Your task to perform on an android device: Open Chrome and go to the settings page Image 0: 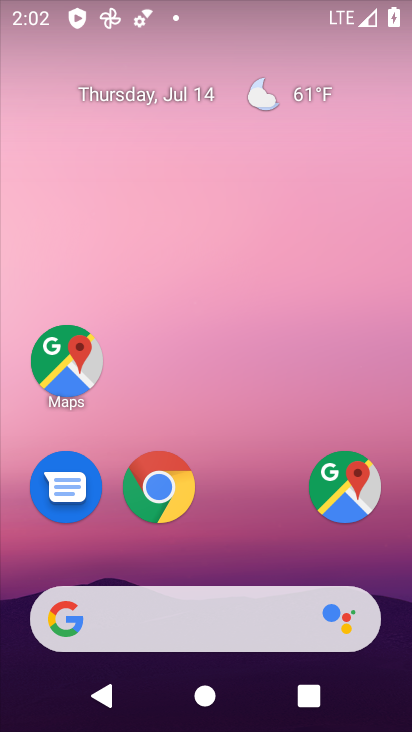
Step 0: drag from (239, 498) to (305, 88)
Your task to perform on an android device: Open Chrome and go to the settings page Image 1: 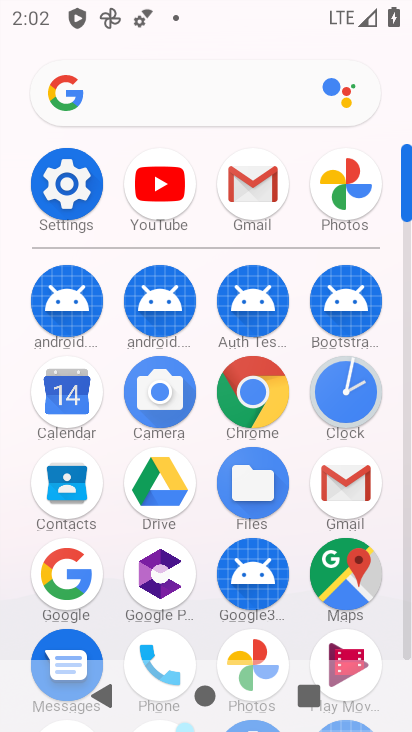
Step 1: click (265, 390)
Your task to perform on an android device: Open Chrome and go to the settings page Image 2: 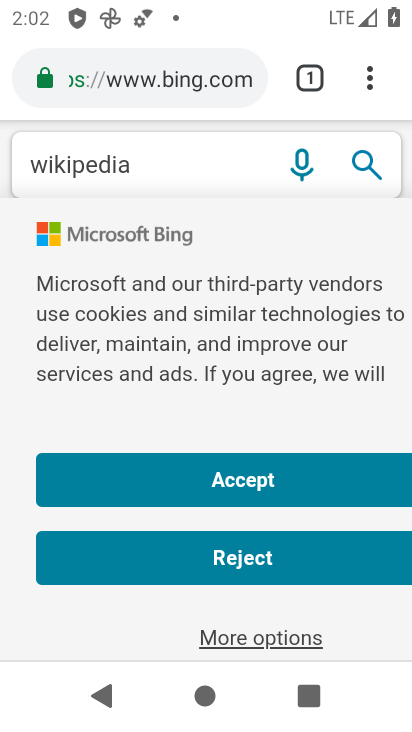
Step 2: click (367, 88)
Your task to perform on an android device: Open Chrome and go to the settings page Image 3: 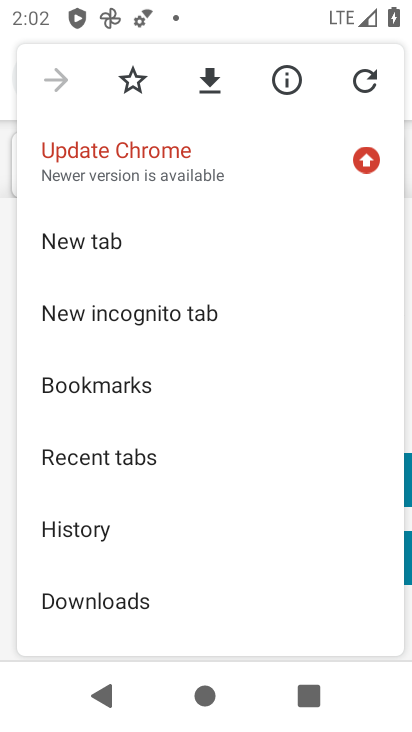
Step 3: drag from (293, 481) to (311, 388)
Your task to perform on an android device: Open Chrome and go to the settings page Image 4: 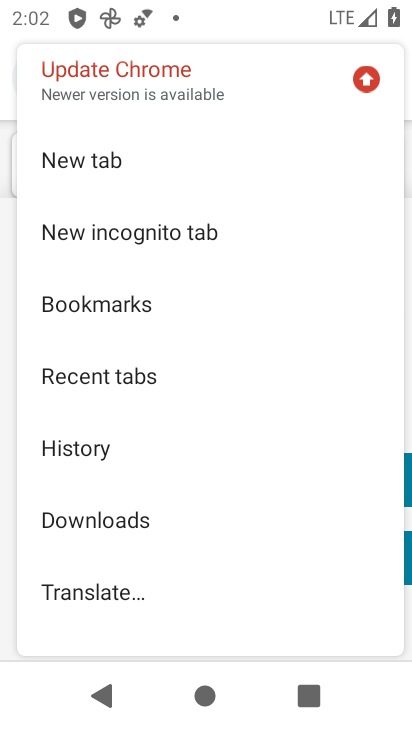
Step 4: drag from (314, 502) to (329, 417)
Your task to perform on an android device: Open Chrome and go to the settings page Image 5: 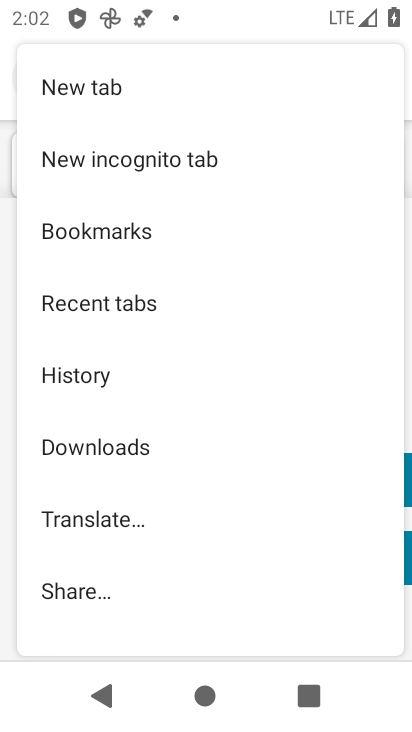
Step 5: drag from (315, 567) to (339, 358)
Your task to perform on an android device: Open Chrome and go to the settings page Image 6: 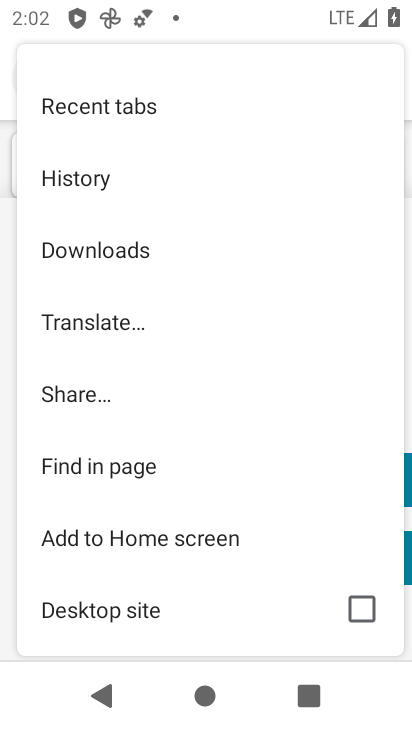
Step 6: drag from (321, 454) to (333, 374)
Your task to perform on an android device: Open Chrome and go to the settings page Image 7: 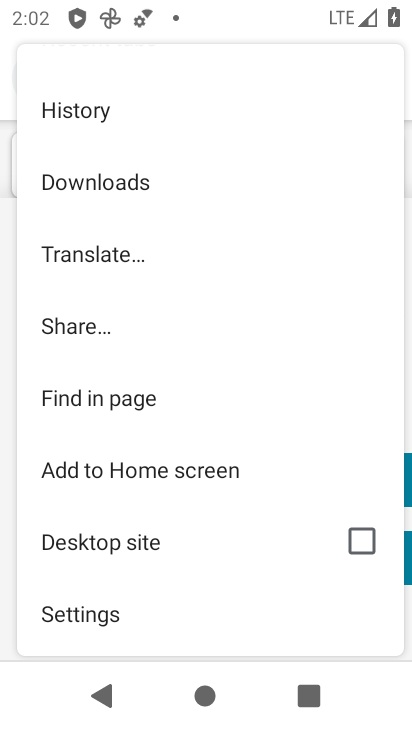
Step 7: drag from (304, 495) to (315, 392)
Your task to perform on an android device: Open Chrome and go to the settings page Image 8: 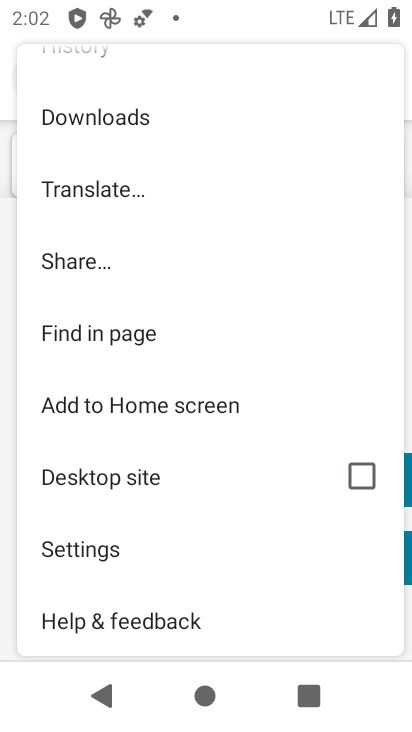
Step 8: click (225, 547)
Your task to perform on an android device: Open Chrome and go to the settings page Image 9: 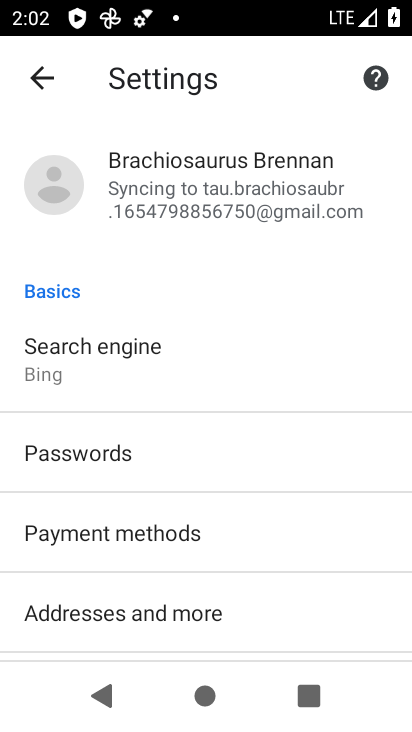
Step 9: task complete